Your task to perform on an android device: change alarm snooze length Image 0: 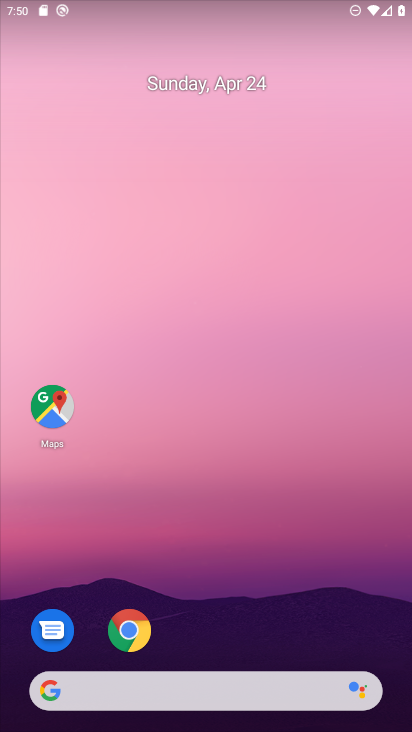
Step 0: drag from (277, 680) to (236, 155)
Your task to perform on an android device: change alarm snooze length Image 1: 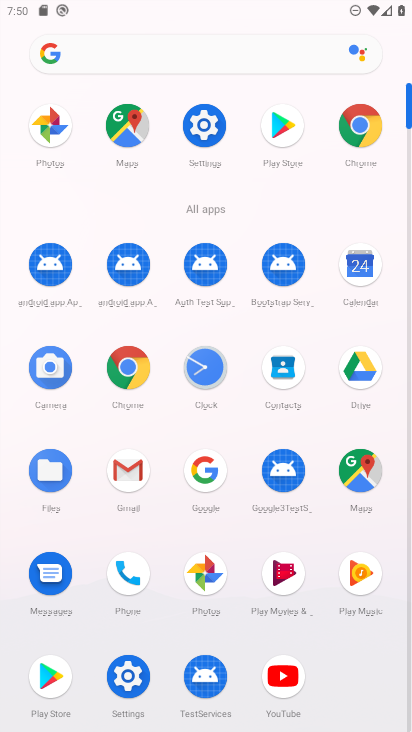
Step 1: click (207, 365)
Your task to perform on an android device: change alarm snooze length Image 2: 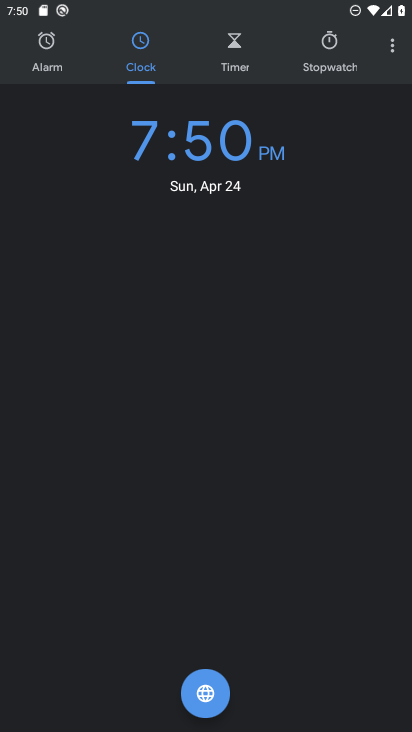
Step 2: click (388, 42)
Your task to perform on an android device: change alarm snooze length Image 3: 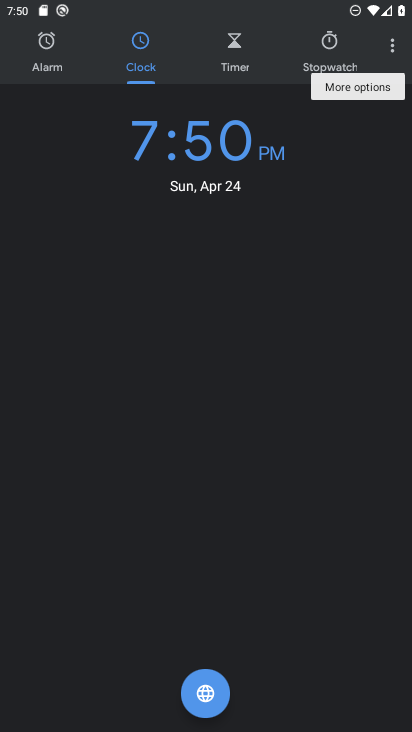
Step 3: click (391, 49)
Your task to perform on an android device: change alarm snooze length Image 4: 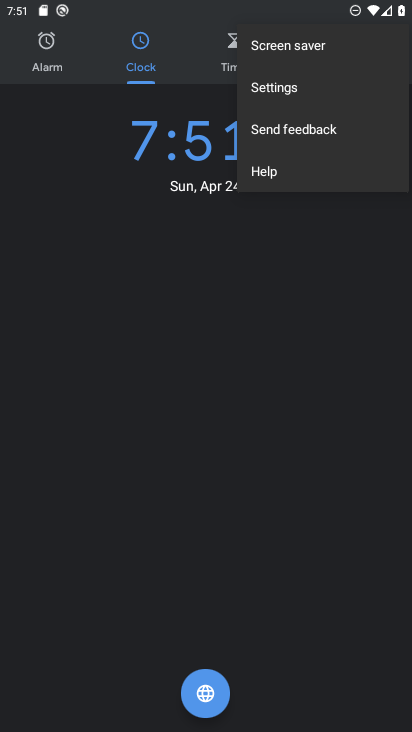
Step 4: click (346, 93)
Your task to perform on an android device: change alarm snooze length Image 5: 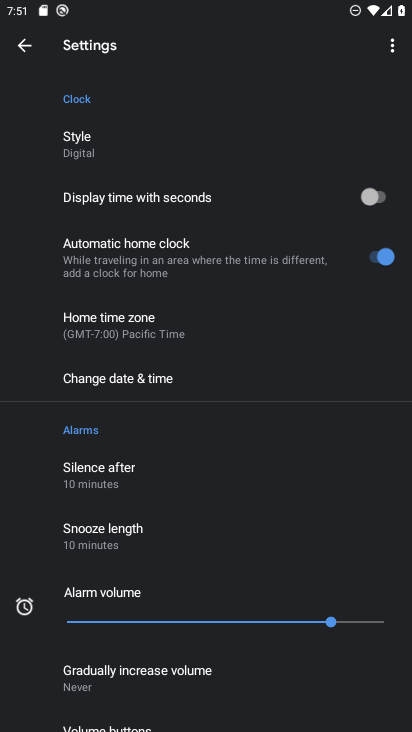
Step 5: click (163, 468)
Your task to perform on an android device: change alarm snooze length Image 6: 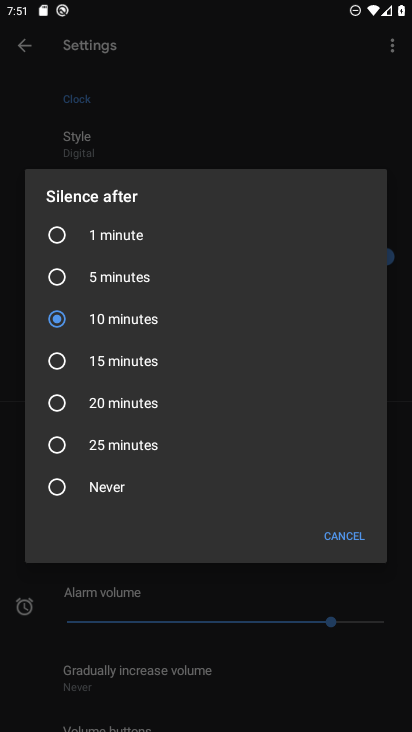
Step 6: click (129, 283)
Your task to perform on an android device: change alarm snooze length Image 7: 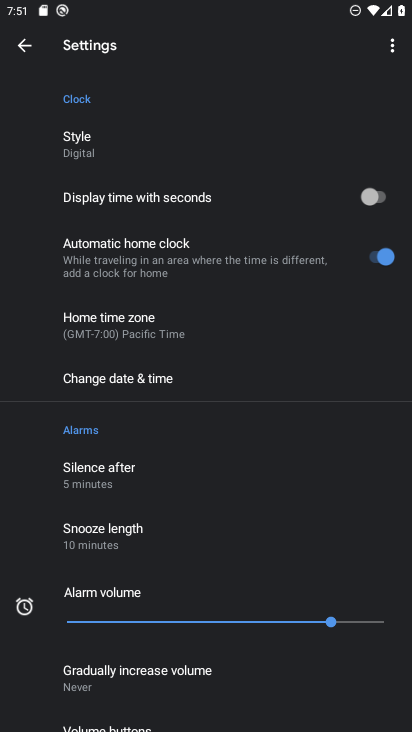
Step 7: task complete